Your task to perform on an android device: Play the last video I watched on Youtube Image 0: 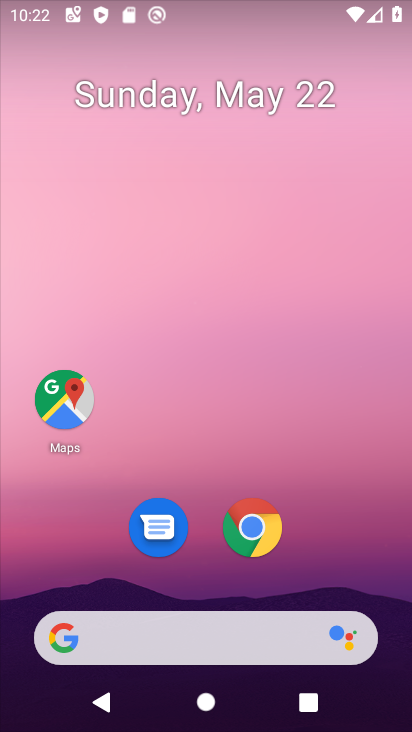
Step 0: drag from (349, 611) to (345, 342)
Your task to perform on an android device: Play the last video I watched on Youtube Image 1: 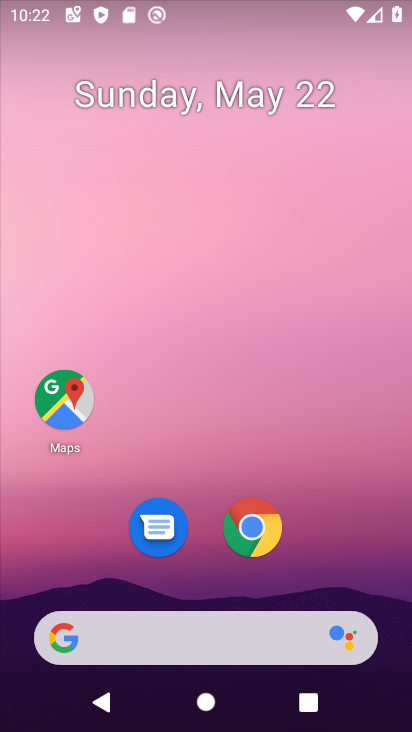
Step 1: drag from (343, 556) to (376, 16)
Your task to perform on an android device: Play the last video I watched on Youtube Image 2: 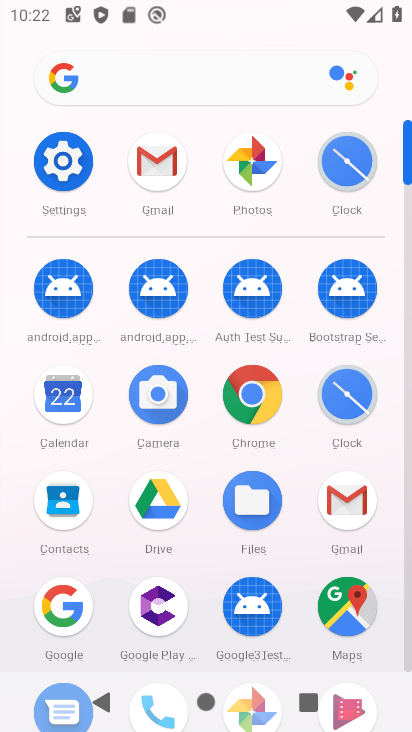
Step 2: click (408, 667)
Your task to perform on an android device: Play the last video I watched on Youtube Image 3: 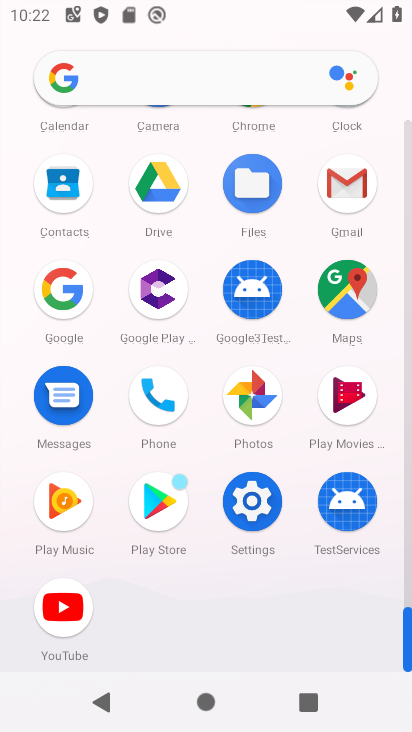
Step 3: click (83, 638)
Your task to perform on an android device: Play the last video I watched on Youtube Image 4: 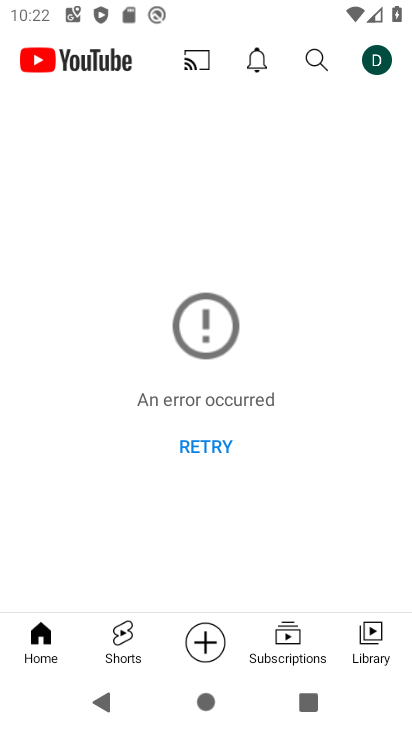
Step 4: click (369, 633)
Your task to perform on an android device: Play the last video I watched on Youtube Image 5: 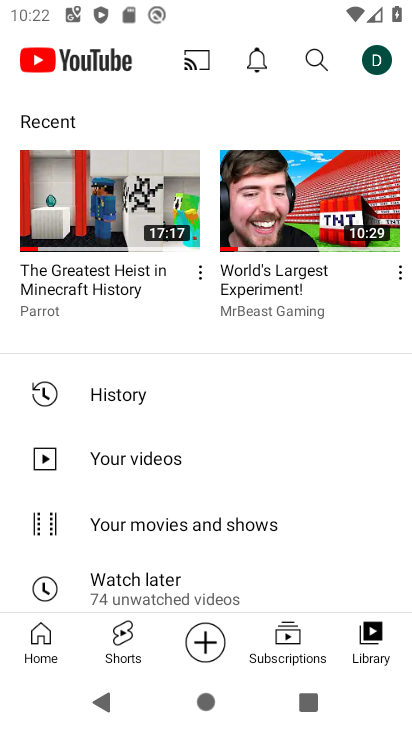
Step 5: task complete